Your task to perform on an android device: Go to Maps Image 0: 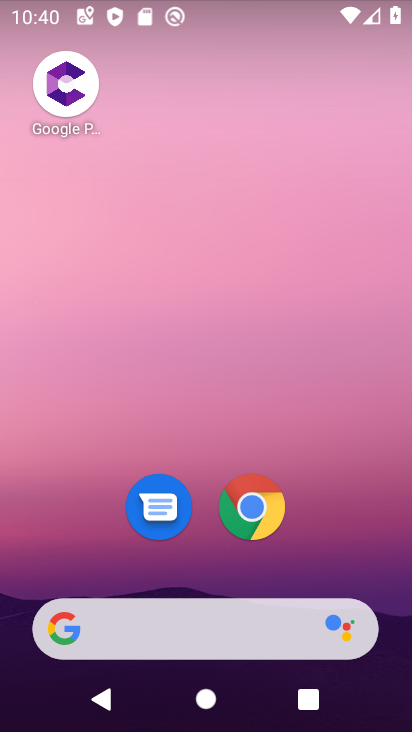
Step 0: drag from (326, 554) to (337, 69)
Your task to perform on an android device: Go to Maps Image 1: 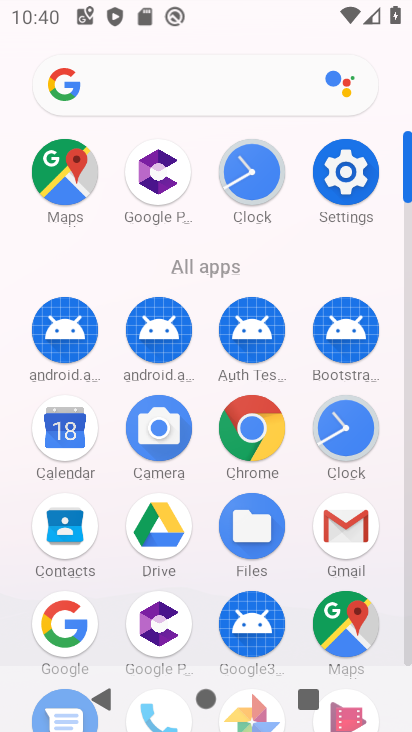
Step 1: click (336, 613)
Your task to perform on an android device: Go to Maps Image 2: 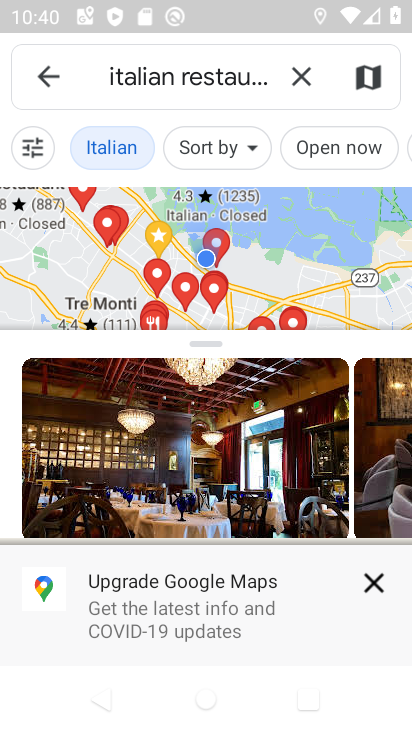
Step 2: click (34, 84)
Your task to perform on an android device: Go to Maps Image 3: 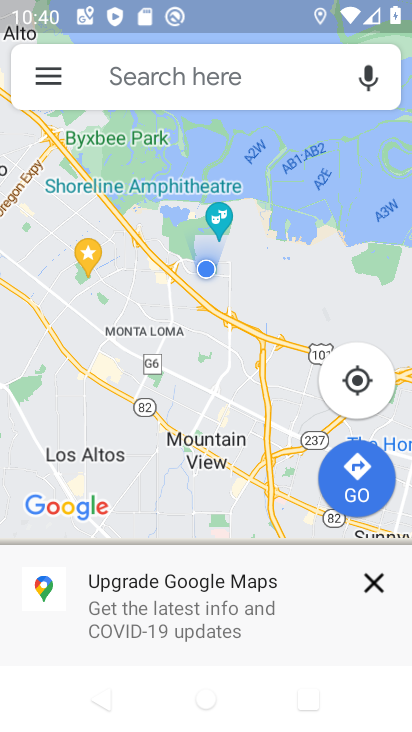
Step 3: task complete